Your task to perform on an android device: Open Amazon Image 0: 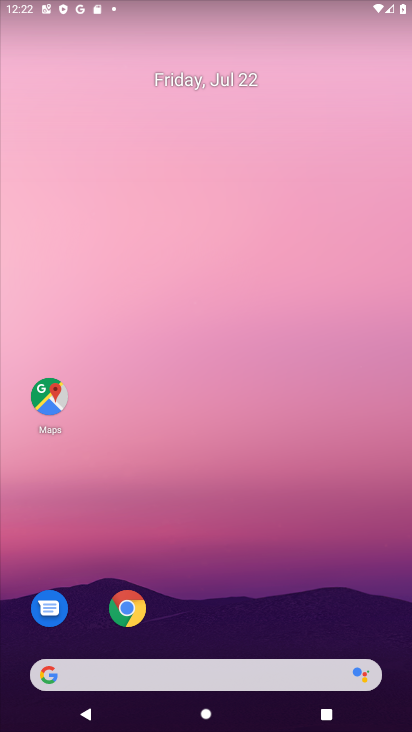
Step 0: click (125, 605)
Your task to perform on an android device: Open Amazon Image 1: 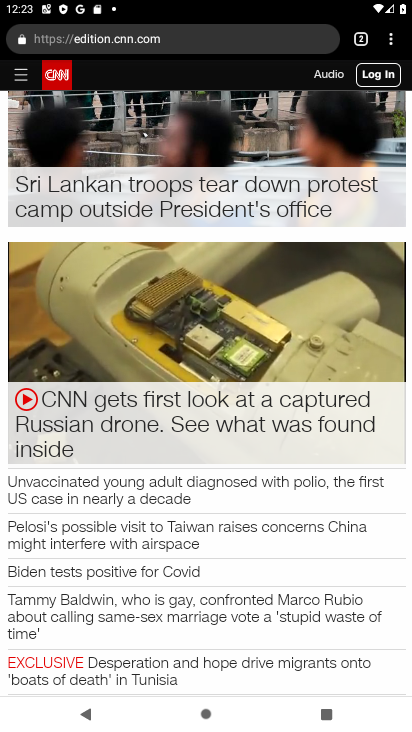
Step 1: click (355, 32)
Your task to perform on an android device: Open Amazon Image 2: 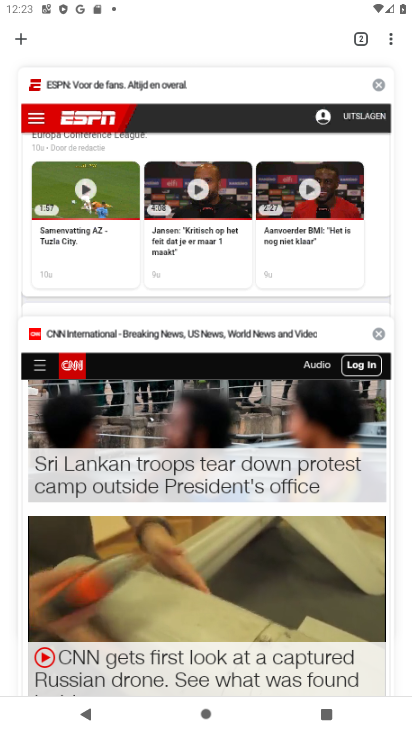
Step 2: click (17, 38)
Your task to perform on an android device: Open Amazon Image 3: 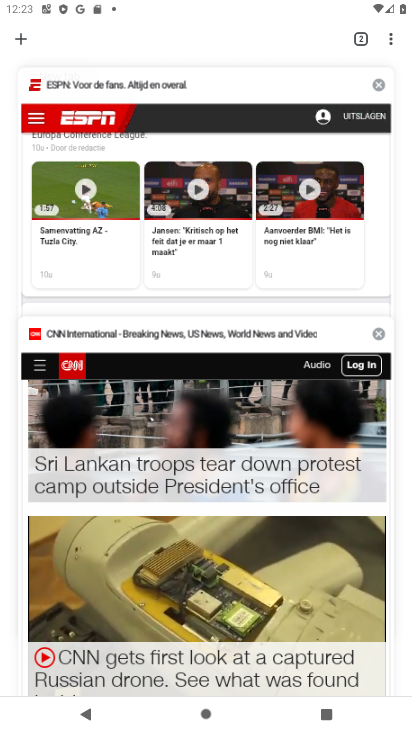
Step 3: click (16, 31)
Your task to perform on an android device: Open Amazon Image 4: 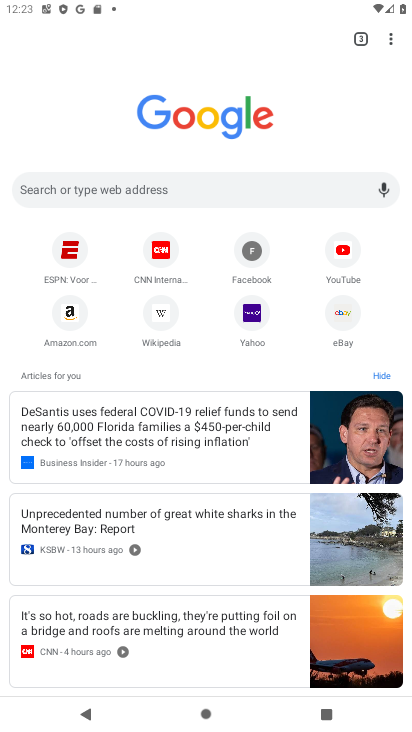
Step 4: click (67, 305)
Your task to perform on an android device: Open Amazon Image 5: 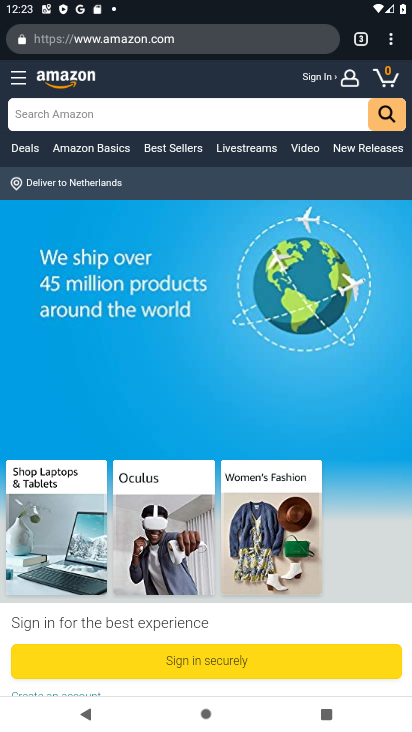
Step 5: task complete